Your task to perform on an android device: Open the Play Movies app and select the watchlist tab. Image 0: 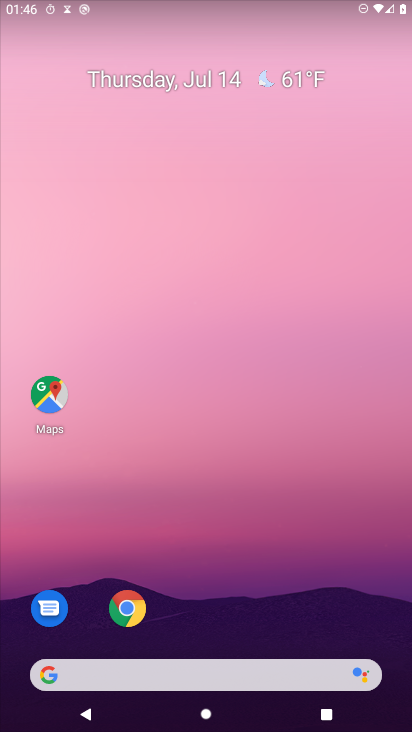
Step 0: press home button
Your task to perform on an android device: Open the Play Movies app and select the watchlist tab. Image 1: 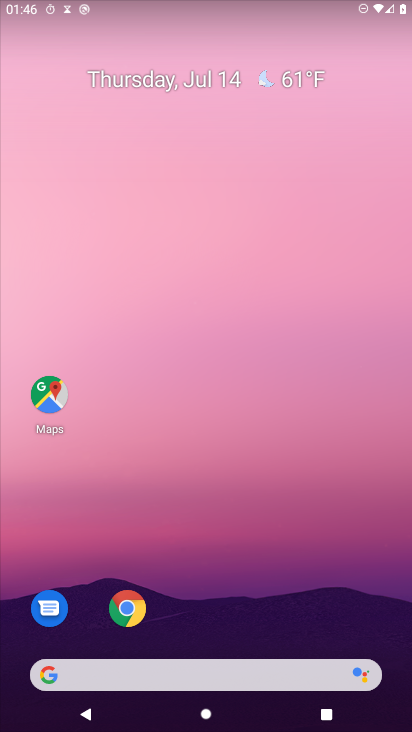
Step 1: drag from (296, 567) to (334, 158)
Your task to perform on an android device: Open the Play Movies app and select the watchlist tab. Image 2: 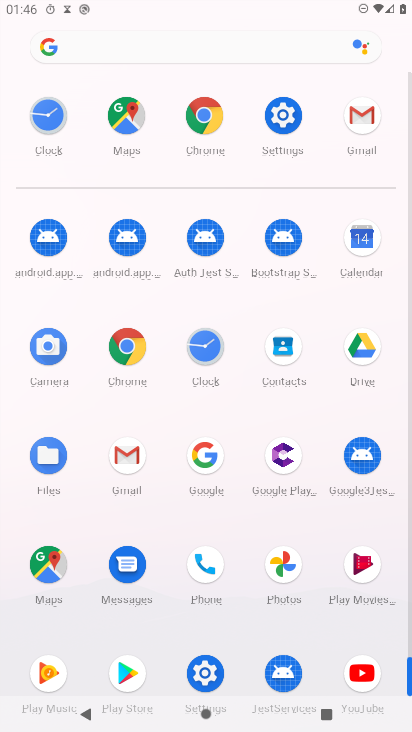
Step 2: click (358, 558)
Your task to perform on an android device: Open the Play Movies app and select the watchlist tab. Image 3: 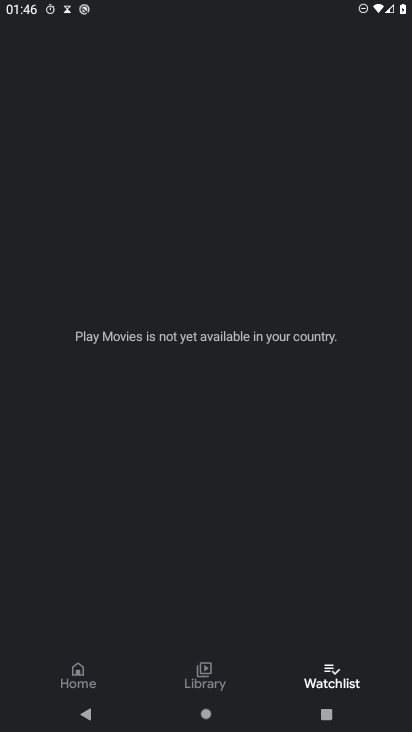
Step 3: click (339, 682)
Your task to perform on an android device: Open the Play Movies app and select the watchlist tab. Image 4: 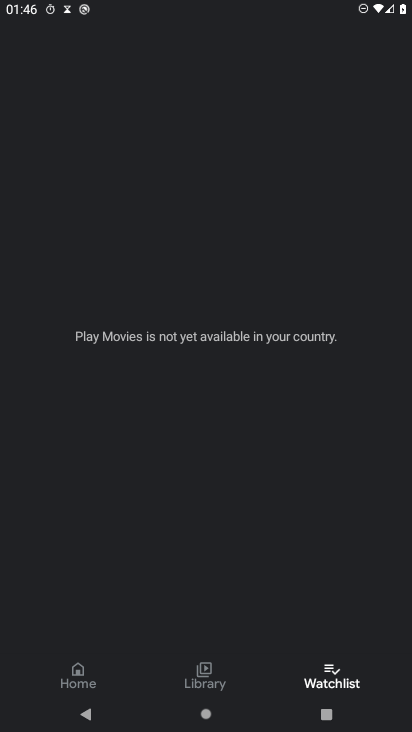
Step 4: task complete